Your task to perform on an android device: check battery use Image 0: 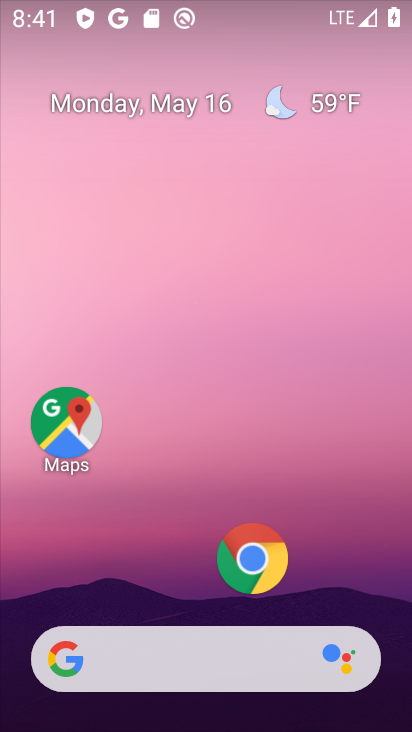
Step 0: drag from (181, 618) to (239, 79)
Your task to perform on an android device: check battery use Image 1: 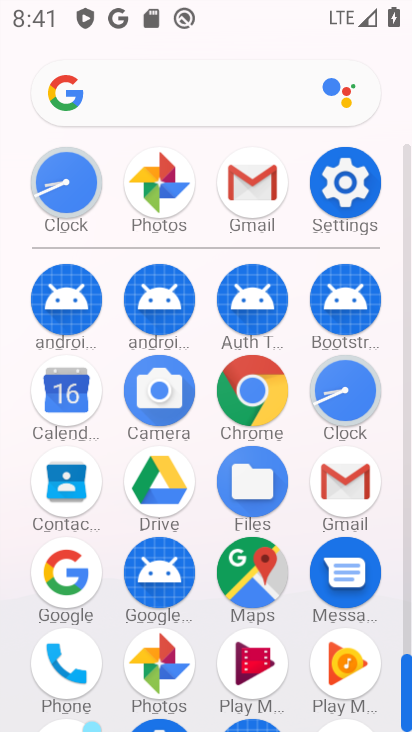
Step 1: click (353, 177)
Your task to perform on an android device: check battery use Image 2: 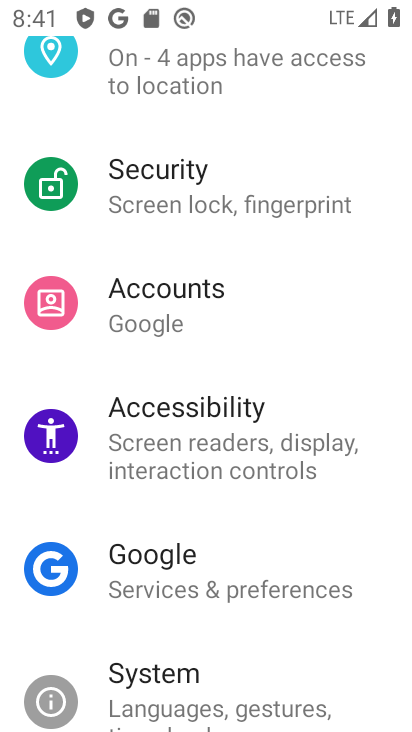
Step 2: drag from (276, 201) to (271, 656)
Your task to perform on an android device: check battery use Image 3: 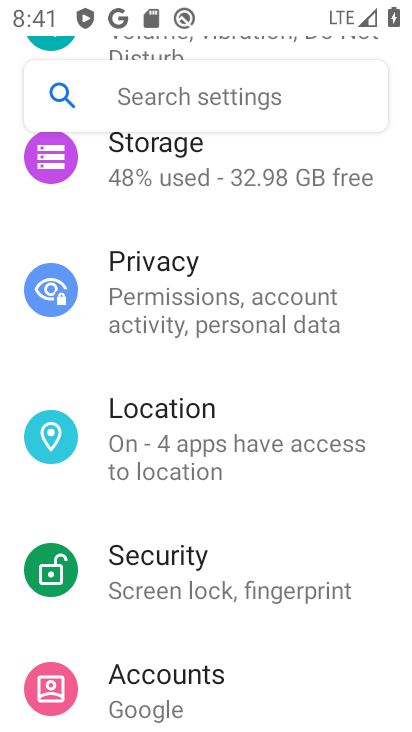
Step 3: drag from (258, 623) to (303, 111)
Your task to perform on an android device: check battery use Image 4: 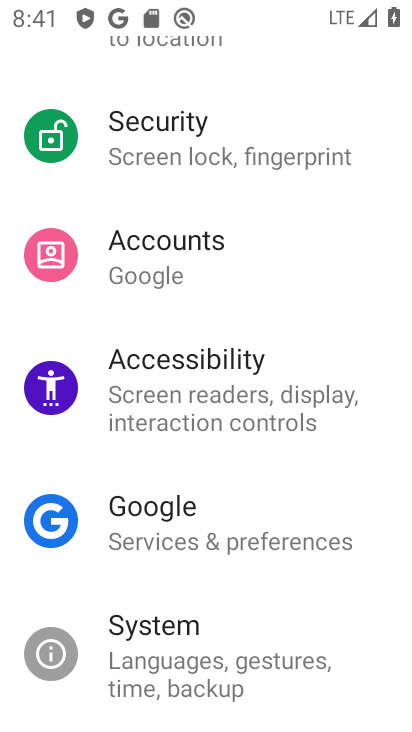
Step 4: drag from (186, 675) to (296, 98)
Your task to perform on an android device: check battery use Image 5: 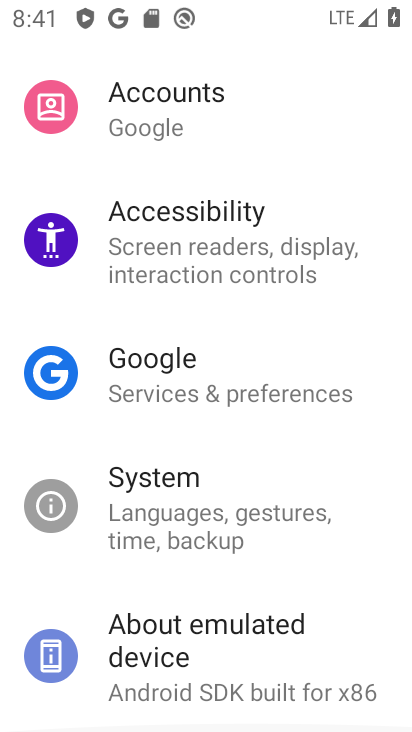
Step 5: drag from (255, 122) to (218, 712)
Your task to perform on an android device: check battery use Image 6: 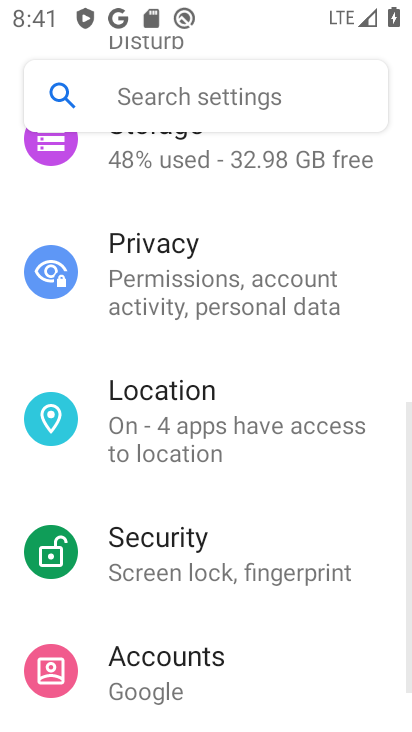
Step 6: drag from (233, 208) to (227, 686)
Your task to perform on an android device: check battery use Image 7: 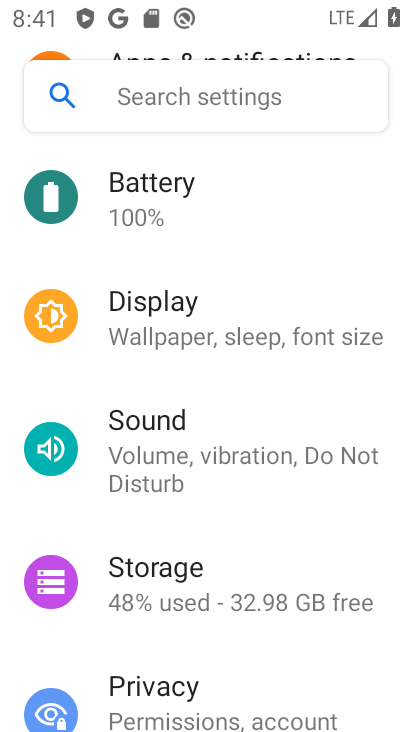
Step 7: click (174, 187)
Your task to perform on an android device: check battery use Image 8: 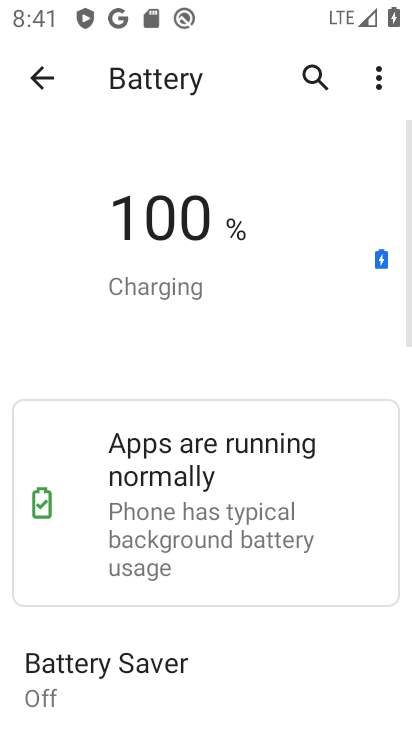
Step 8: click (379, 76)
Your task to perform on an android device: check battery use Image 9: 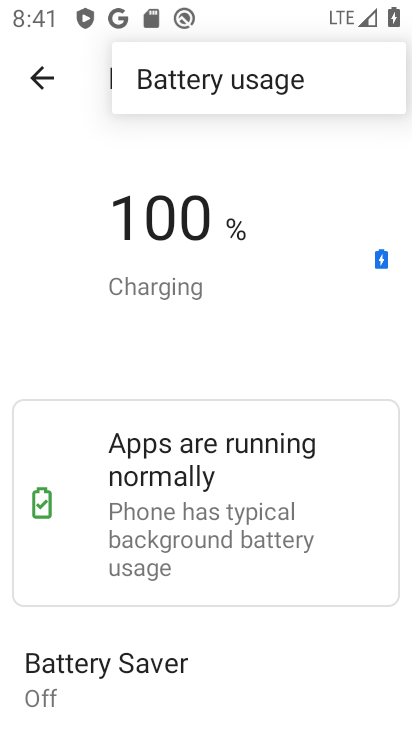
Step 9: click (329, 97)
Your task to perform on an android device: check battery use Image 10: 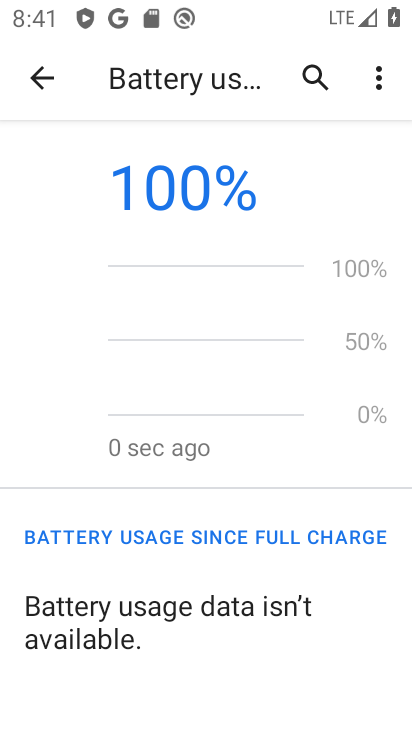
Step 10: task complete